Your task to perform on an android device: change keyboard looks Image 0: 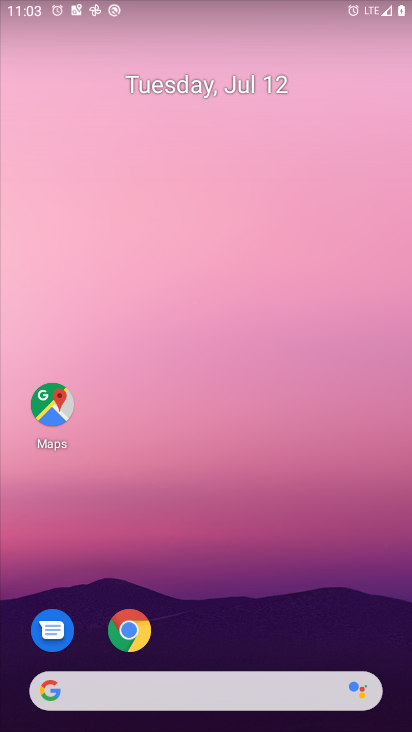
Step 0: press home button
Your task to perform on an android device: change keyboard looks Image 1: 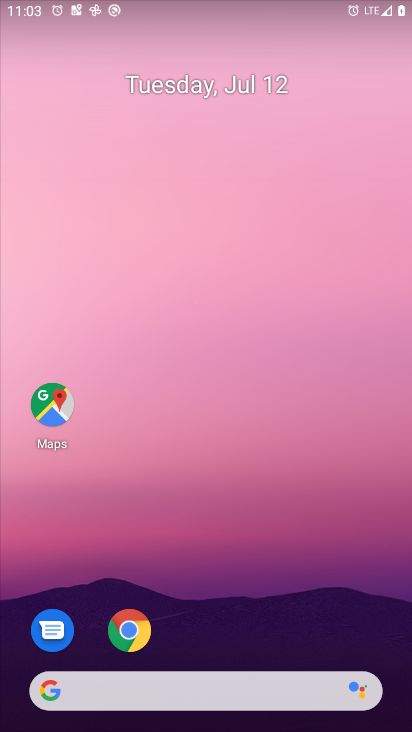
Step 1: drag from (271, 584) to (296, 133)
Your task to perform on an android device: change keyboard looks Image 2: 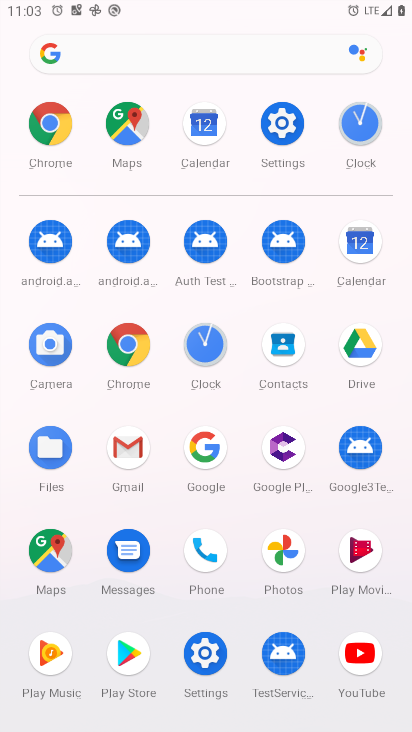
Step 2: click (290, 131)
Your task to perform on an android device: change keyboard looks Image 3: 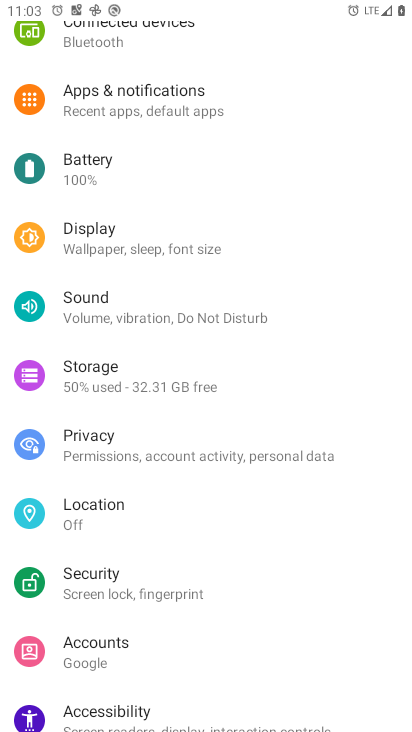
Step 3: drag from (174, 666) to (205, 311)
Your task to perform on an android device: change keyboard looks Image 4: 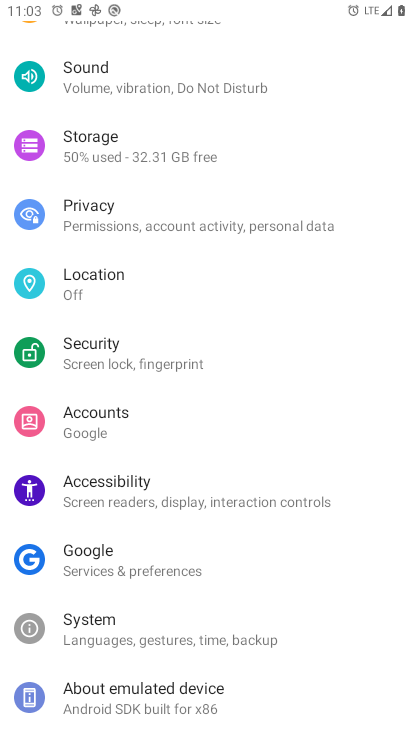
Step 4: click (85, 617)
Your task to perform on an android device: change keyboard looks Image 5: 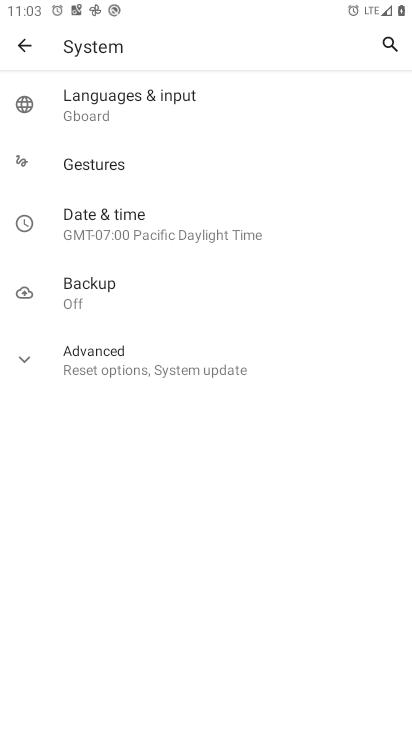
Step 5: click (98, 103)
Your task to perform on an android device: change keyboard looks Image 6: 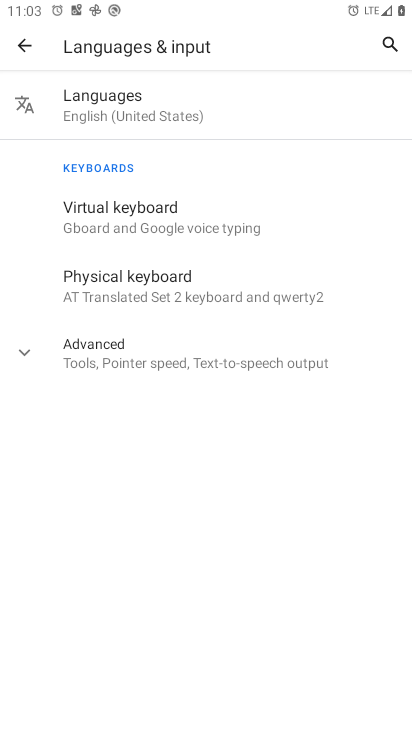
Step 6: click (122, 203)
Your task to perform on an android device: change keyboard looks Image 7: 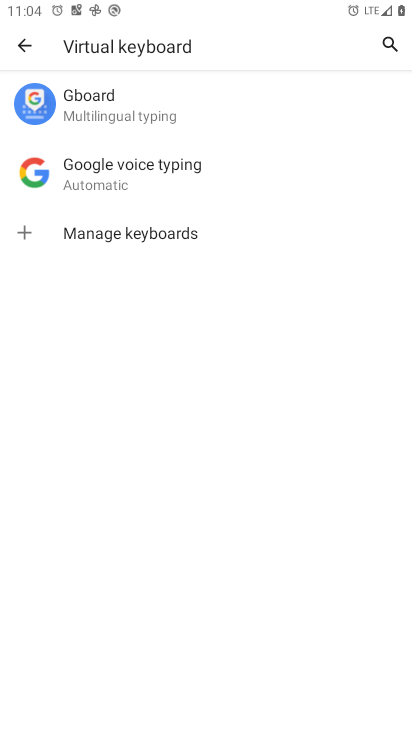
Step 7: click (76, 112)
Your task to perform on an android device: change keyboard looks Image 8: 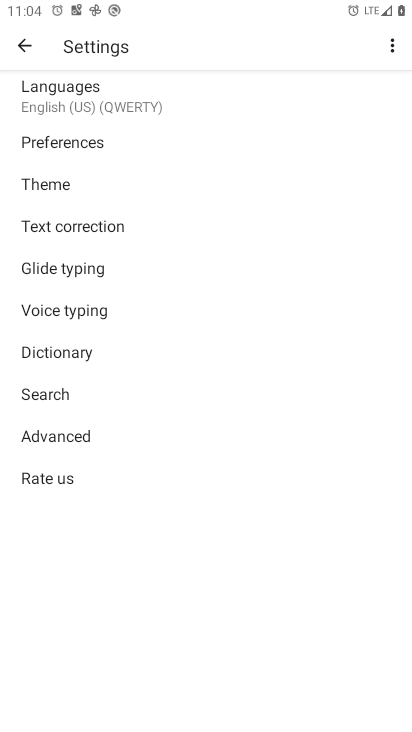
Step 8: click (59, 185)
Your task to perform on an android device: change keyboard looks Image 9: 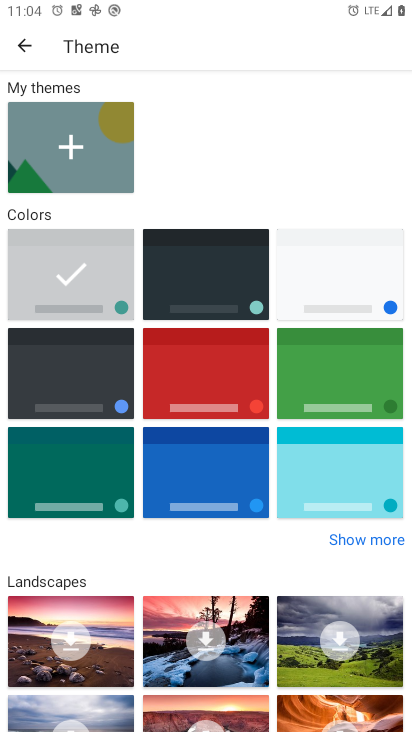
Step 9: click (194, 374)
Your task to perform on an android device: change keyboard looks Image 10: 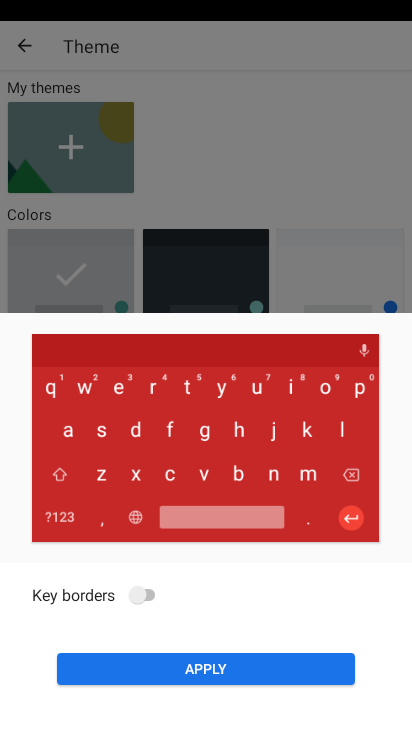
Step 10: click (206, 678)
Your task to perform on an android device: change keyboard looks Image 11: 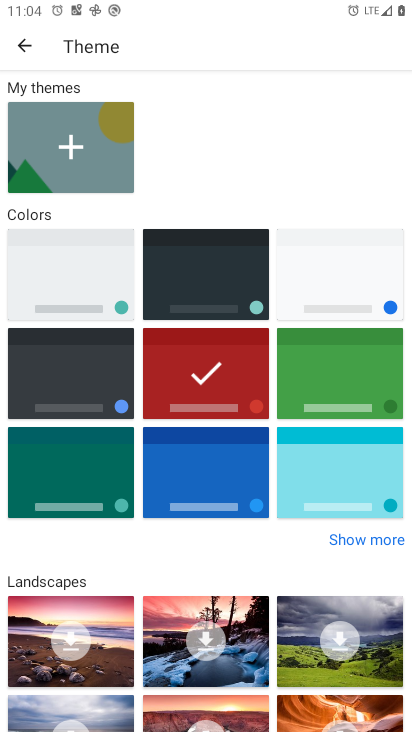
Step 11: task complete